Your task to perform on an android device: clear history in the chrome app Image 0: 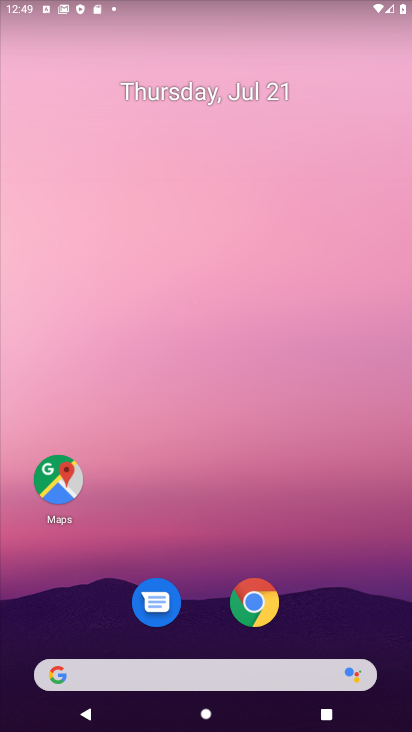
Step 0: drag from (380, 642) to (263, 11)
Your task to perform on an android device: clear history in the chrome app Image 1: 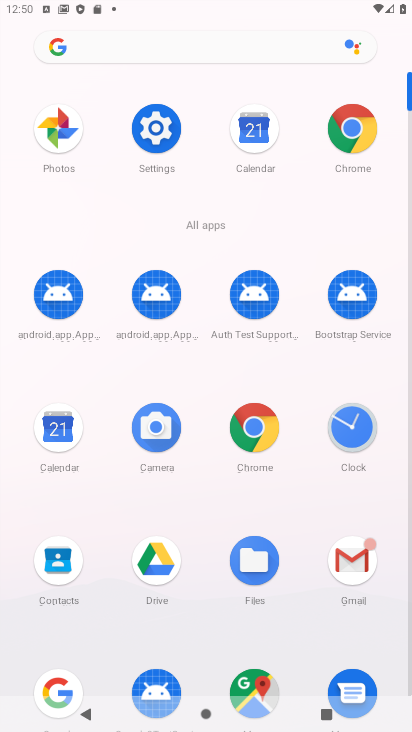
Step 1: click (355, 124)
Your task to perform on an android device: clear history in the chrome app Image 2: 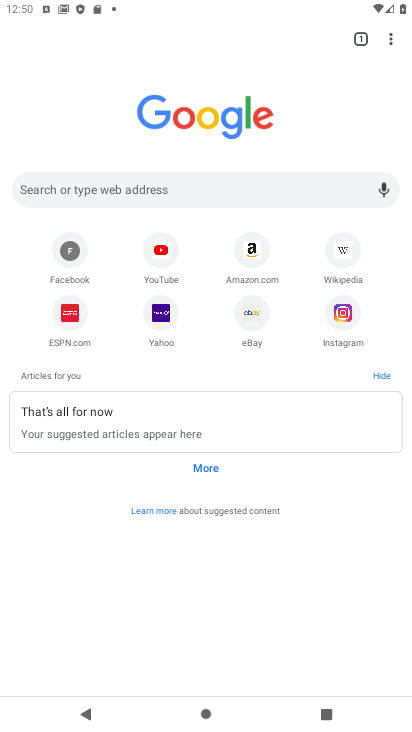
Step 2: click (391, 34)
Your task to perform on an android device: clear history in the chrome app Image 3: 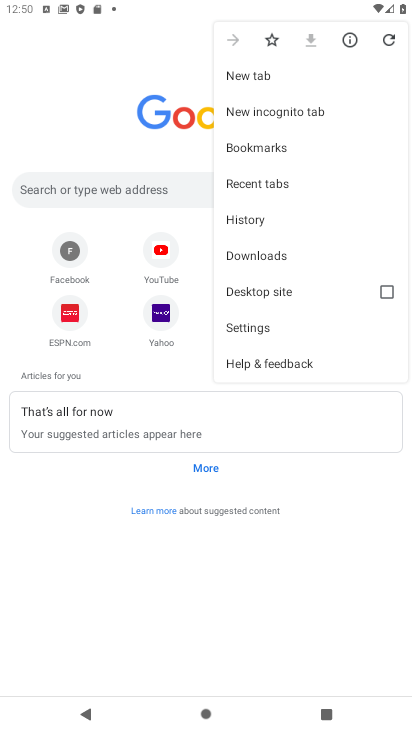
Step 3: click (264, 214)
Your task to perform on an android device: clear history in the chrome app Image 4: 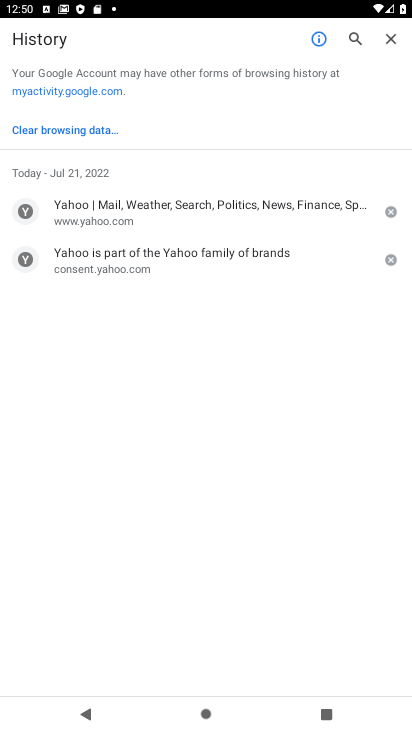
Step 4: click (82, 128)
Your task to perform on an android device: clear history in the chrome app Image 5: 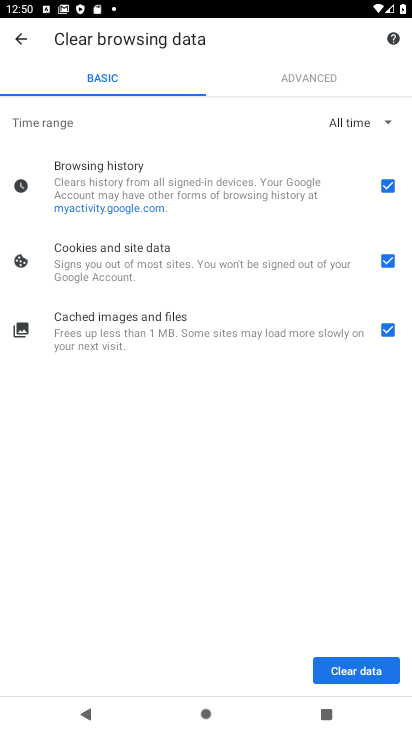
Step 5: click (363, 664)
Your task to perform on an android device: clear history in the chrome app Image 6: 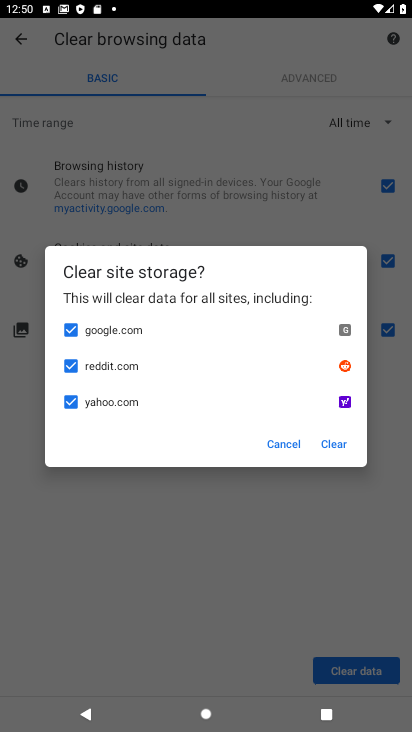
Step 6: click (337, 440)
Your task to perform on an android device: clear history in the chrome app Image 7: 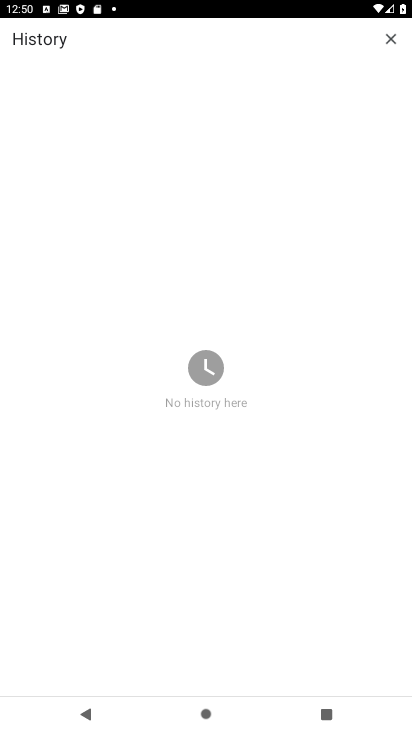
Step 7: task complete